Your task to perform on an android device: star an email in the gmail app Image 0: 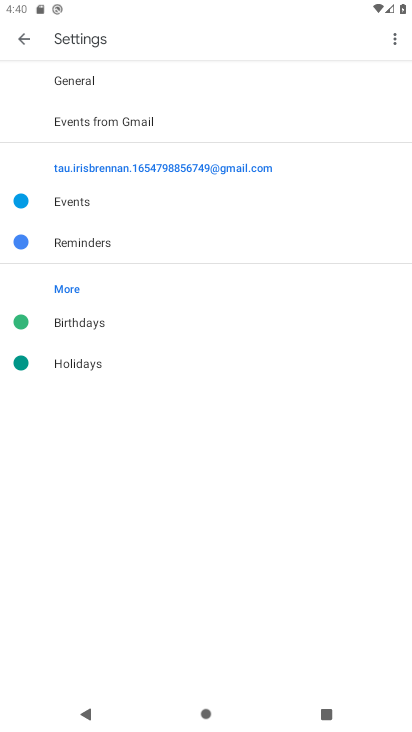
Step 0: press home button
Your task to perform on an android device: star an email in the gmail app Image 1: 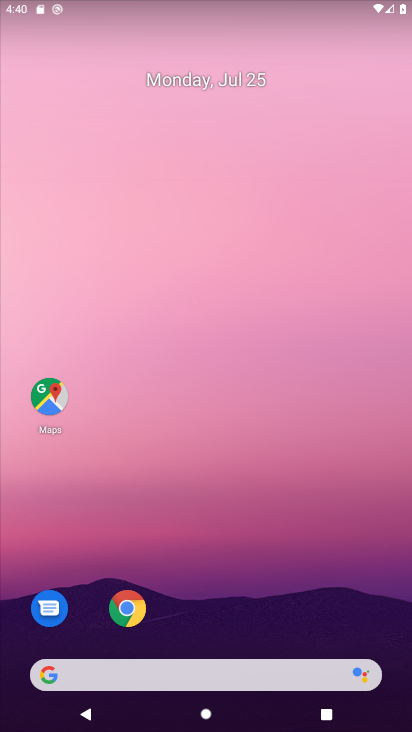
Step 1: drag from (208, 641) to (150, 0)
Your task to perform on an android device: star an email in the gmail app Image 2: 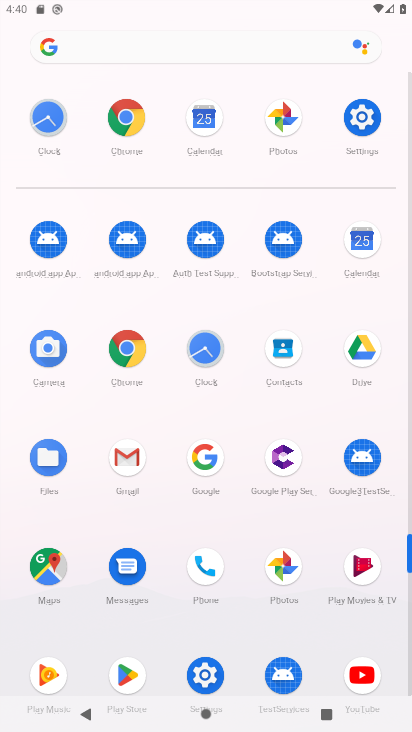
Step 2: click (130, 456)
Your task to perform on an android device: star an email in the gmail app Image 3: 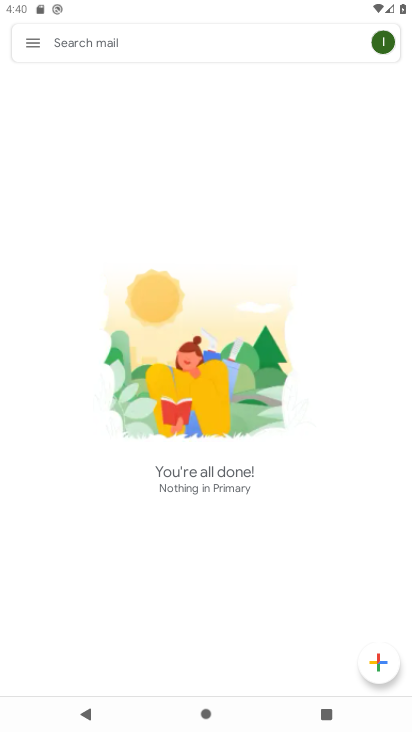
Step 3: task complete